Your task to perform on an android device: change the upload size in google photos Image 0: 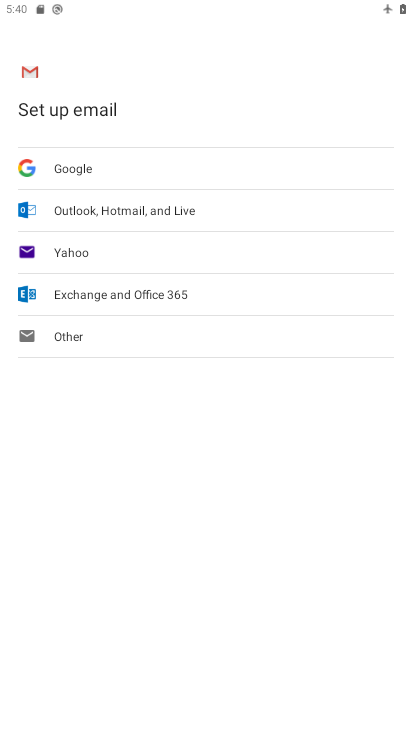
Step 0: press home button
Your task to perform on an android device: change the upload size in google photos Image 1: 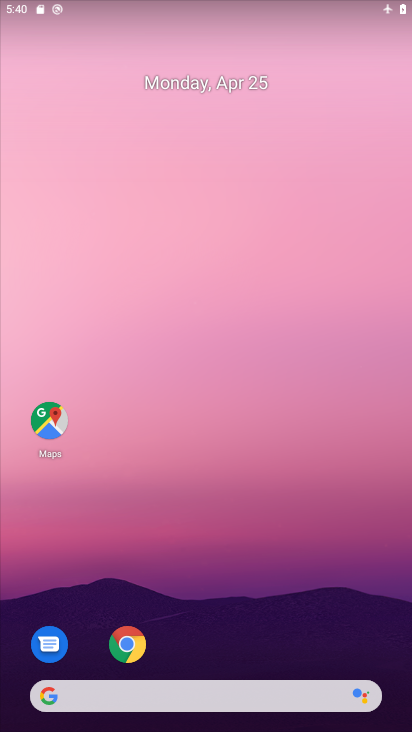
Step 1: drag from (309, 609) to (263, 28)
Your task to perform on an android device: change the upload size in google photos Image 2: 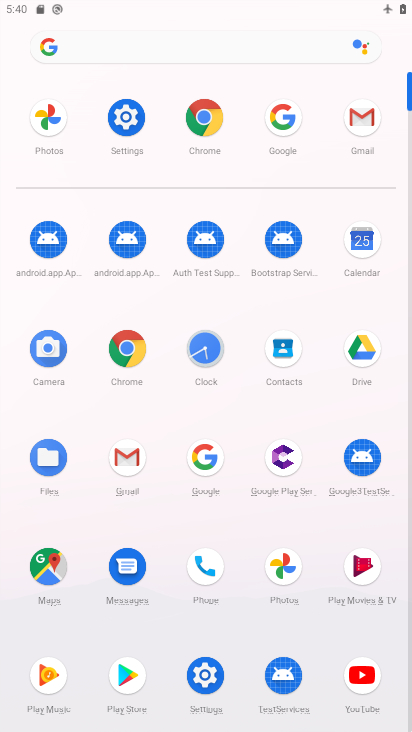
Step 2: click (43, 123)
Your task to perform on an android device: change the upload size in google photos Image 3: 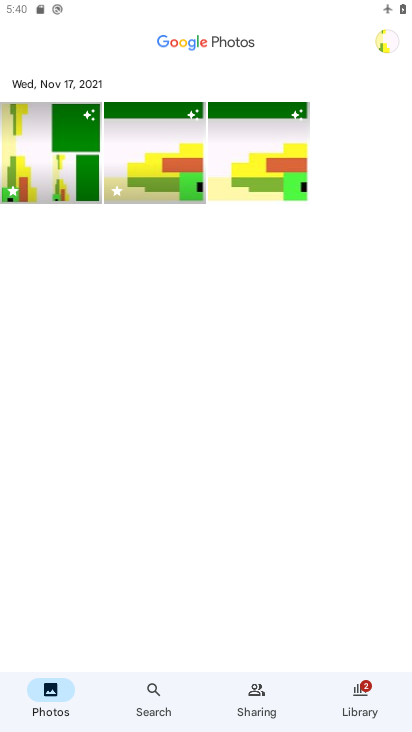
Step 3: click (382, 40)
Your task to perform on an android device: change the upload size in google photos Image 4: 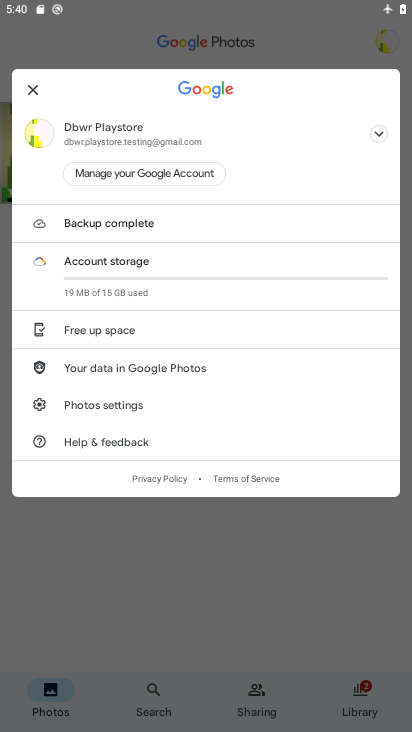
Step 4: click (126, 409)
Your task to perform on an android device: change the upload size in google photos Image 5: 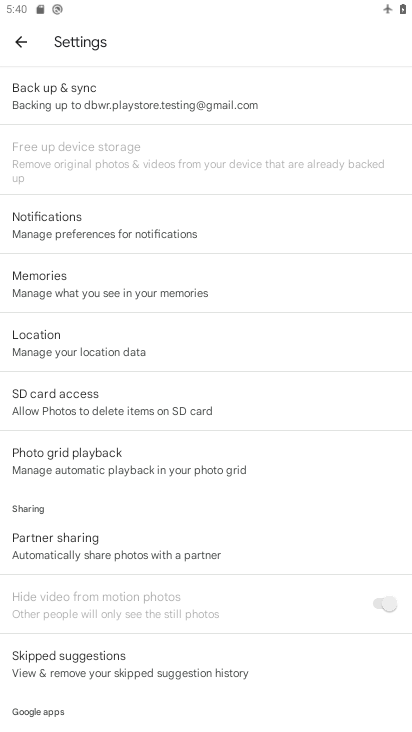
Step 5: click (82, 95)
Your task to perform on an android device: change the upload size in google photos Image 6: 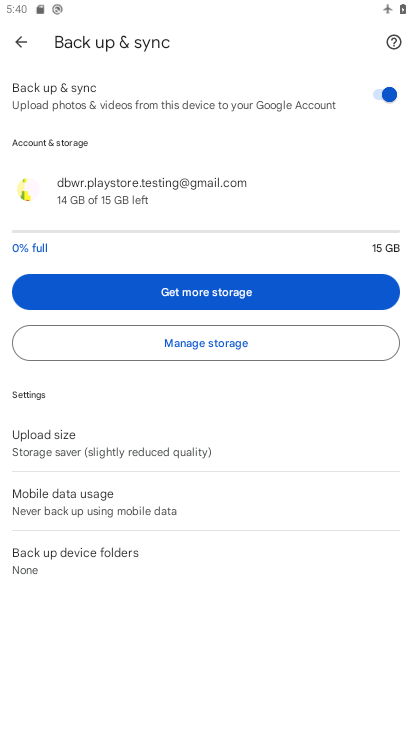
Step 6: click (103, 443)
Your task to perform on an android device: change the upload size in google photos Image 7: 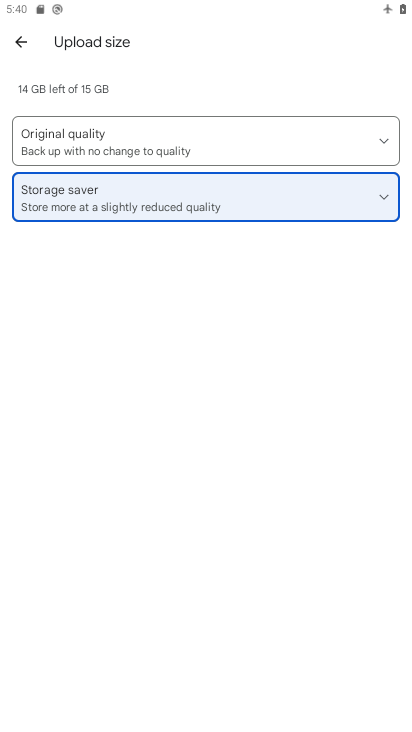
Step 7: click (135, 136)
Your task to perform on an android device: change the upload size in google photos Image 8: 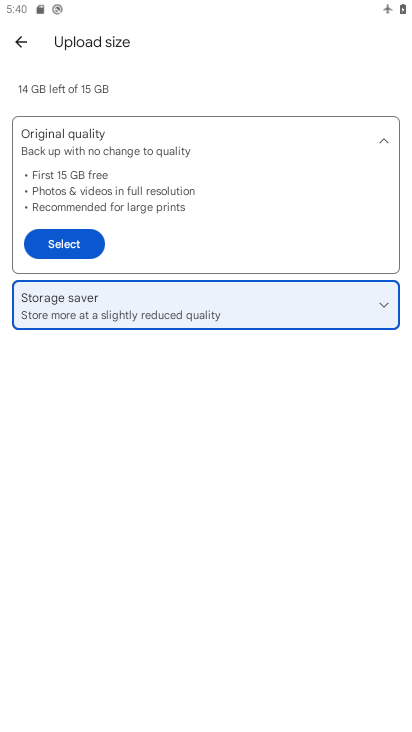
Step 8: click (72, 240)
Your task to perform on an android device: change the upload size in google photos Image 9: 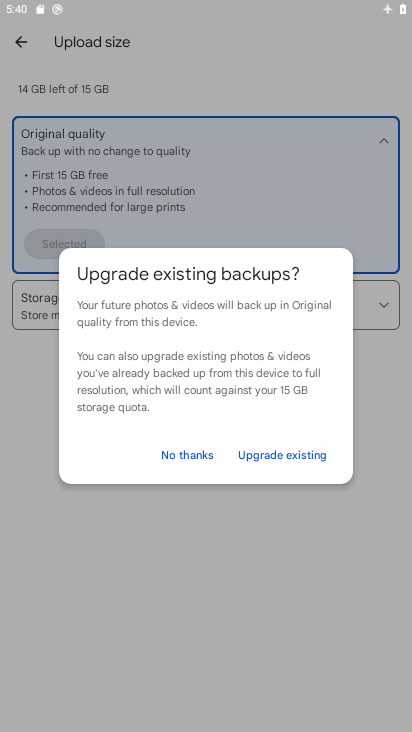
Step 9: click (205, 455)
Your task to perform on an android device: change the upload size in google photos Image 10: 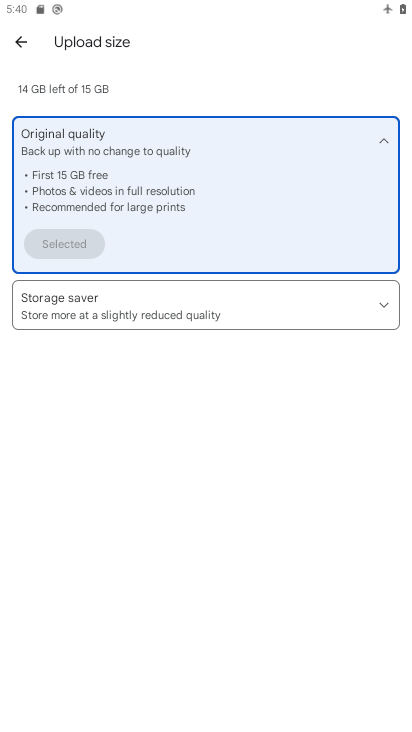
Step 10: task complete